Your task to perform on an android device: Open sound settings Image 0: 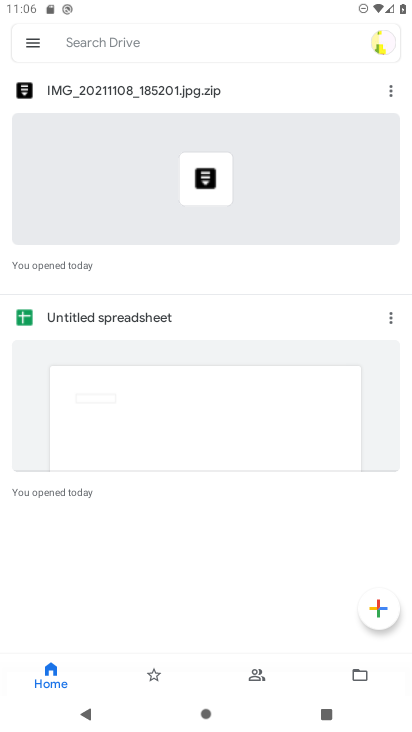
Step 0: press home button
Your task to perform on an android device: Open sound settings Image 1: 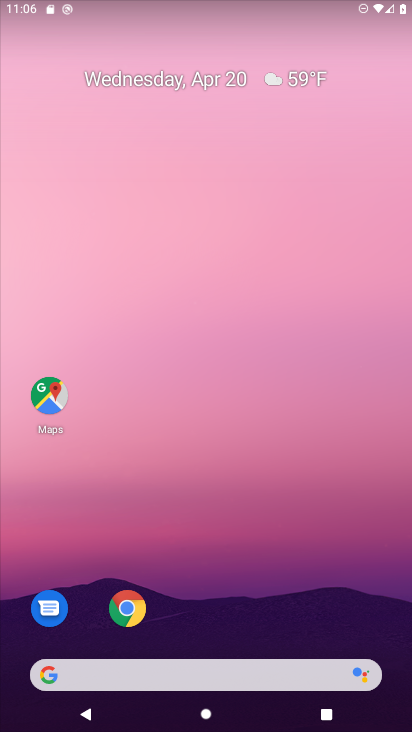
Step 1: drag from (270, 620) to (305, 136)
Your task to perform on an android device: Open sound settings Image 2: 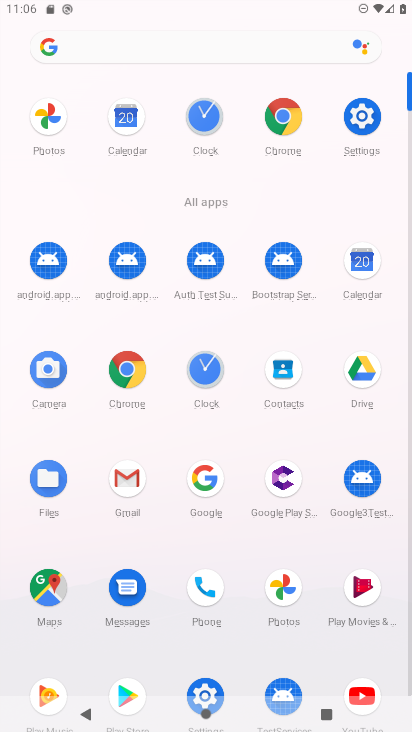
Step 2: click (370, 115)
Your task to perform on an android device: Open sound settings Image 3: 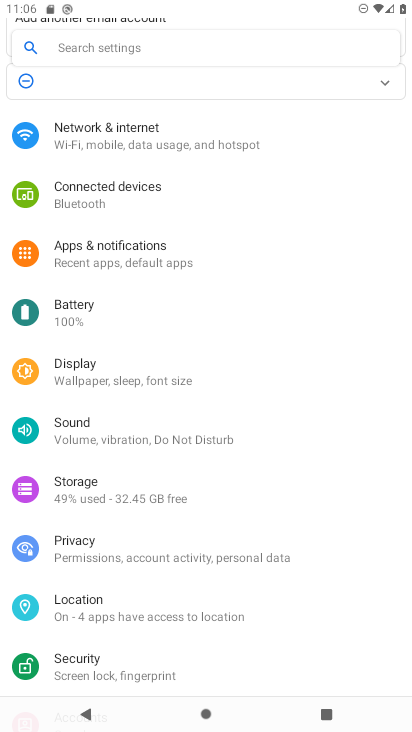
Step 3: click (162, 437)
Your task to perform on an android device: Open sound settings Image 4: 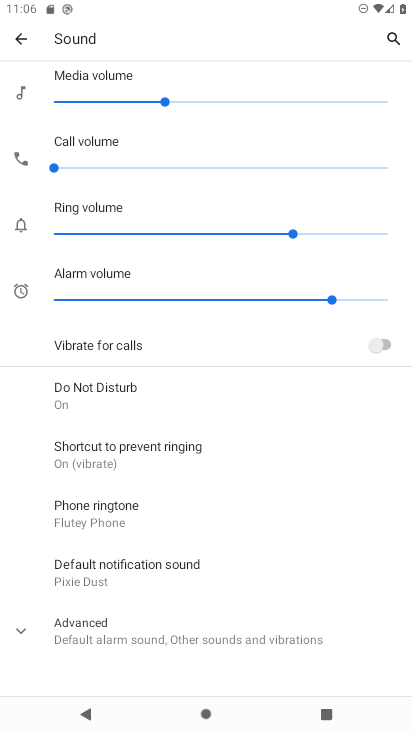
Step 4: task complete